Your task to perform on an android device: create a new album in the google photos Image 0: 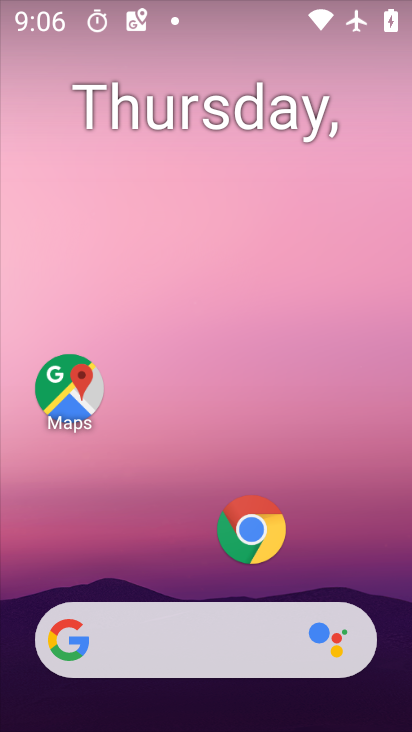
Step 0: press home button
Your task to perform on an android device: create a new album in the google photos Image 1: 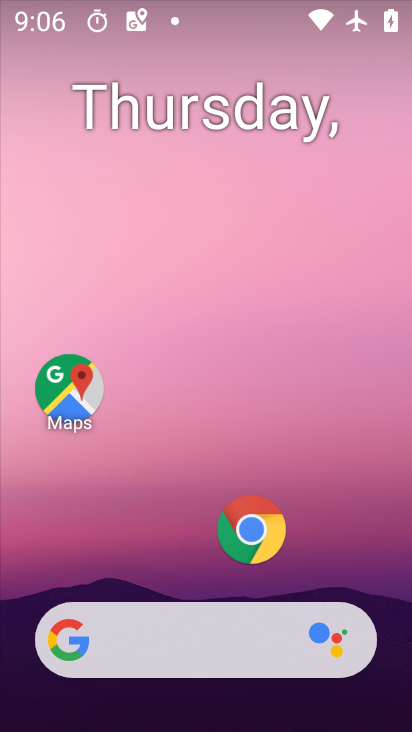
Step 1: press home button
Your task to perform on an android device: create a new album in the google photos Image 2: 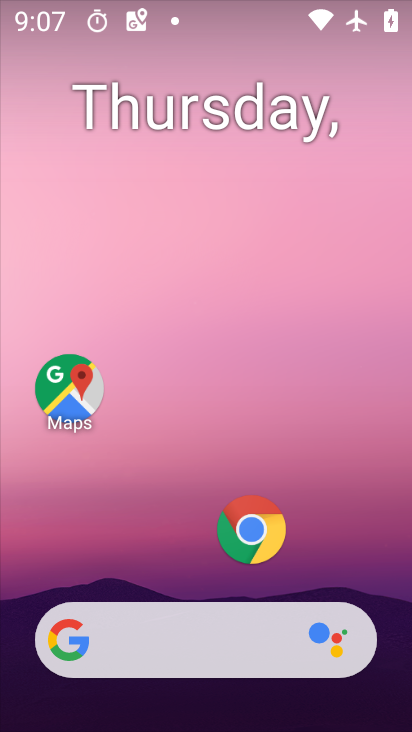
Step 2: drag from (200, 578) to (277, 34)
Your task to perform on an android device: create a new album in the google photos Image 3: 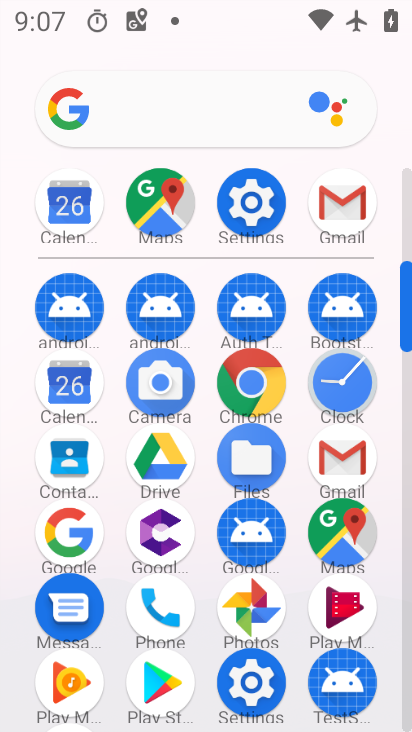
Step 3: click (247, 601)
Your task to perform on an android device: create a new album in the google photos Image 4: 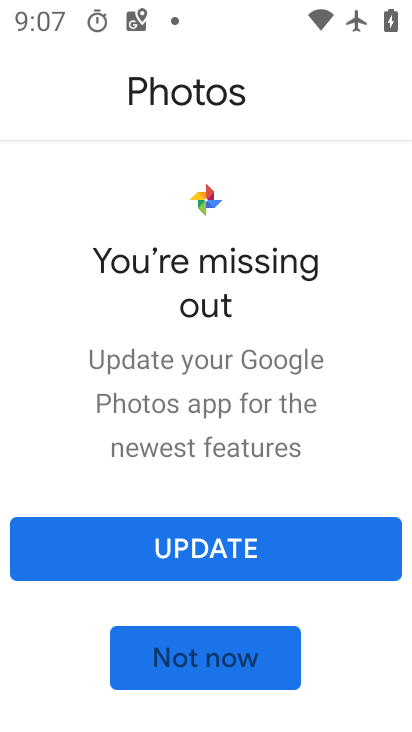
Step 4: click (213, 546)
Your task to perform on an android device: create a new album in the google photos Image 5: 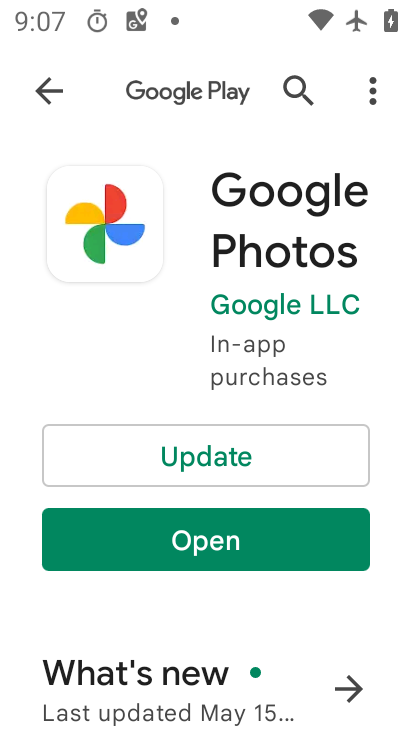
Step 5: click (198, 457)
Your task to perform on an android device: create a new album in the google photos Image 6: 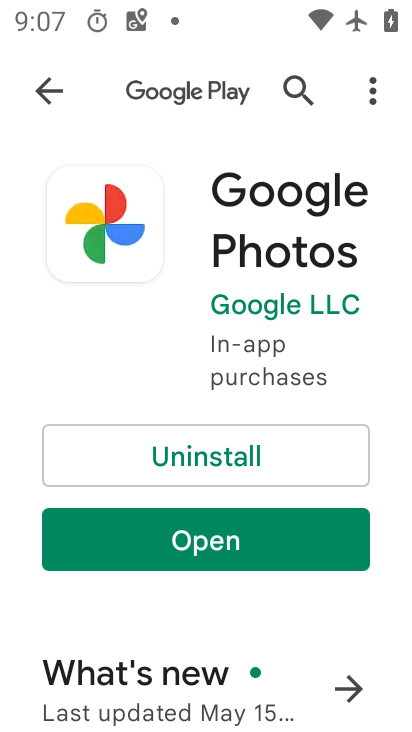
Step 6: click (208, 555)
Your task to perform on an android device: create a new album in the google photos Image 7: 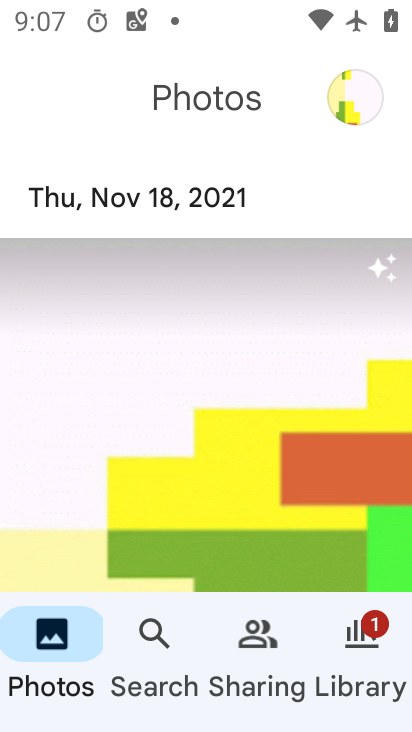
Step 7: click (252, 642)
Your task to perform on an android device: create a new album in the google photos Image 8: 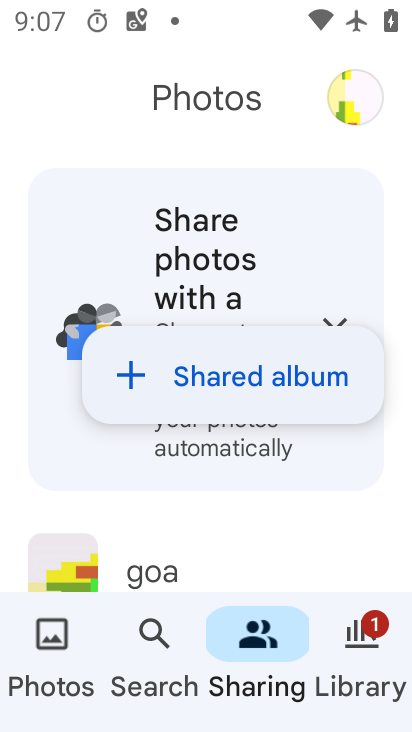
Step 8: click (131, 369)
Your task to perform on an android device: create a new album in the google photos Image 9: 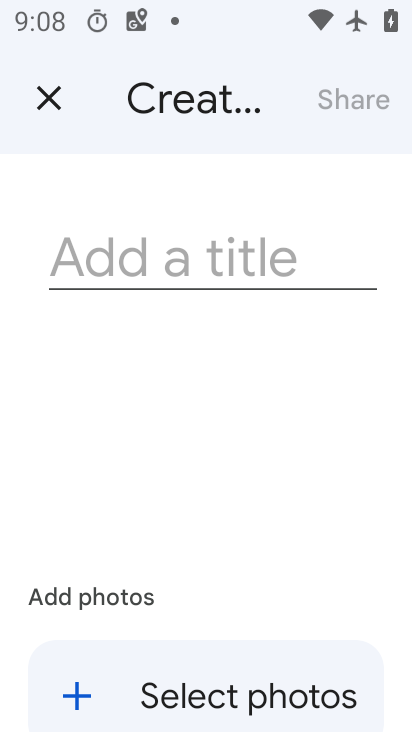
Step 9: click (81, 688)
Your task to perform on an android device: create a new album in the google photos Image 10: 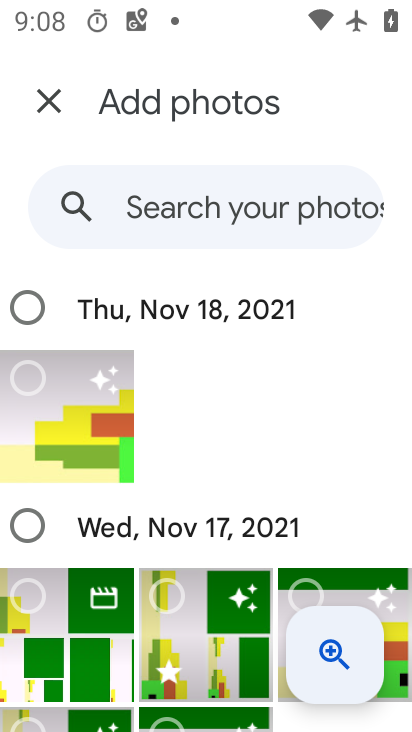
Step 10: click (24, 523)
Your task to perform on an android device: create a new album in the google photos Image 11: 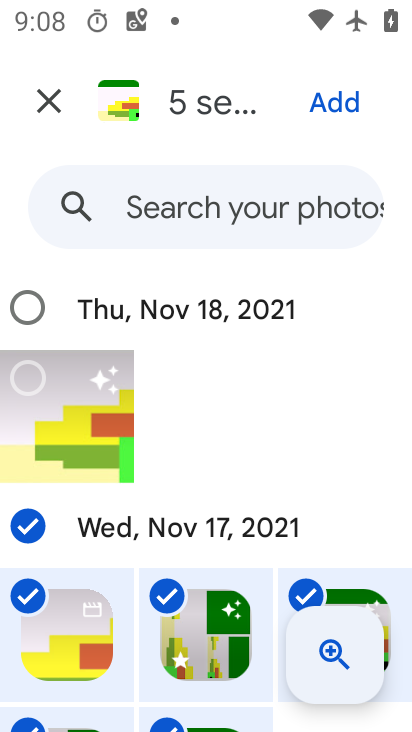
Step 11: click (338, 101)
Your task to perform on an android device: create a new album in the google photos Image 12: 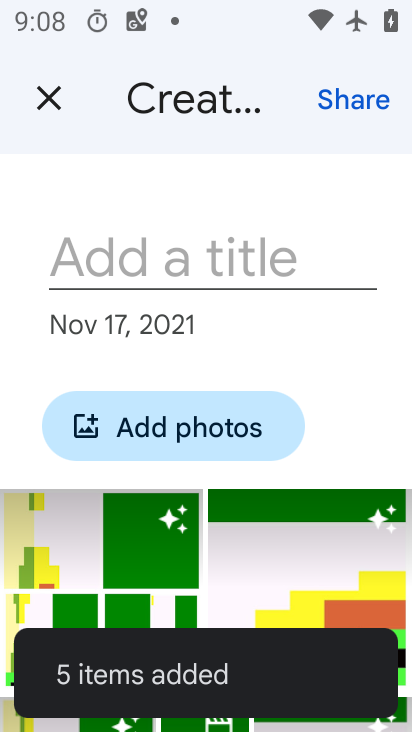
Step 12: click (116, 250)
Your task to perform on an android device: create a new album in the google photos Image 13: 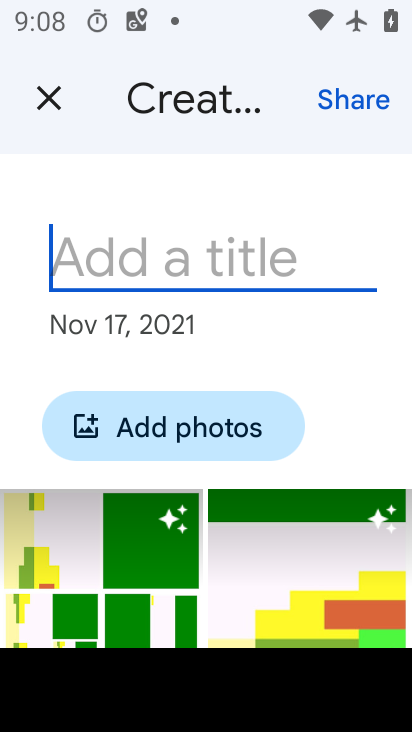
Step 13: type "gcgfxf"
Your task to perform on an android device: create a new album in the google photos Image 14: 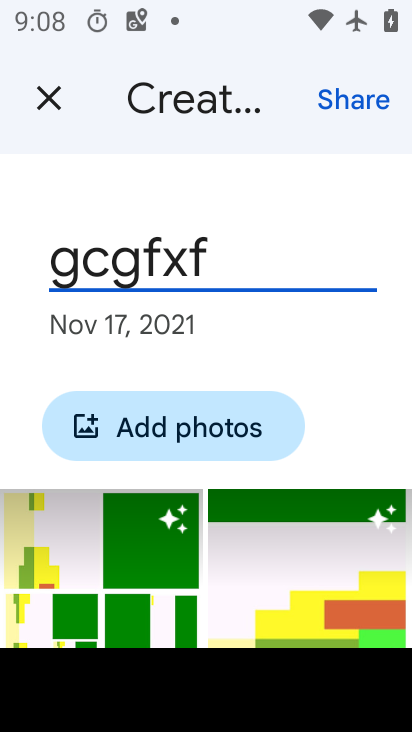
Step 14: click (313, 369)
Your task to perform on an android device: create a new album in the google photos Image 15: 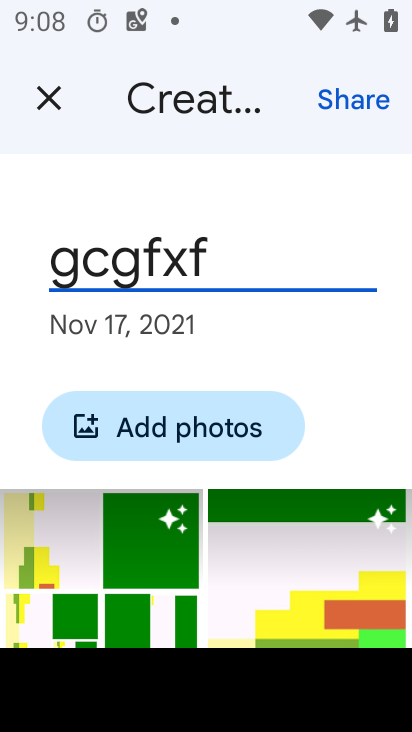
Step 15: click (368, 435)
Your task to perform on an android device: create a new album in the google photos Image 16: 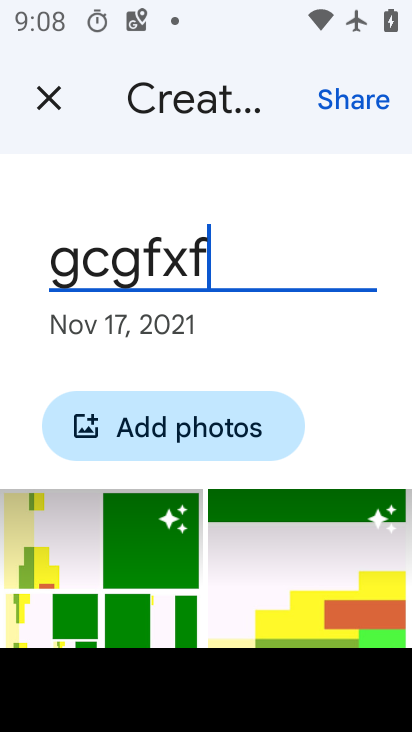
Step 16: task complete